Your task to perform on an android device: turn off wifi Image 0: 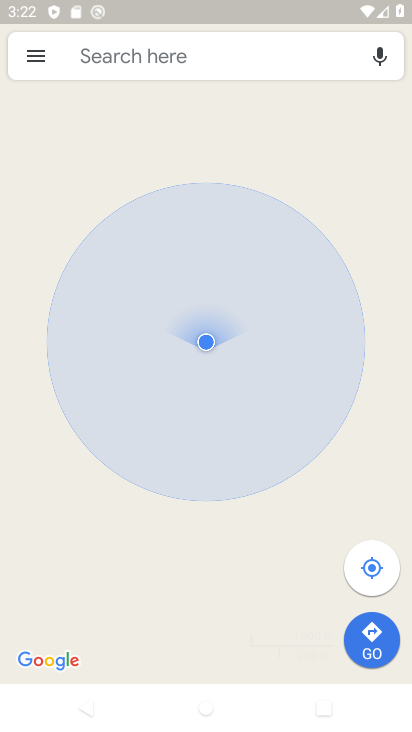
Step 0: press home button
Your task to perform on an android device: turn off wifi Image 1: 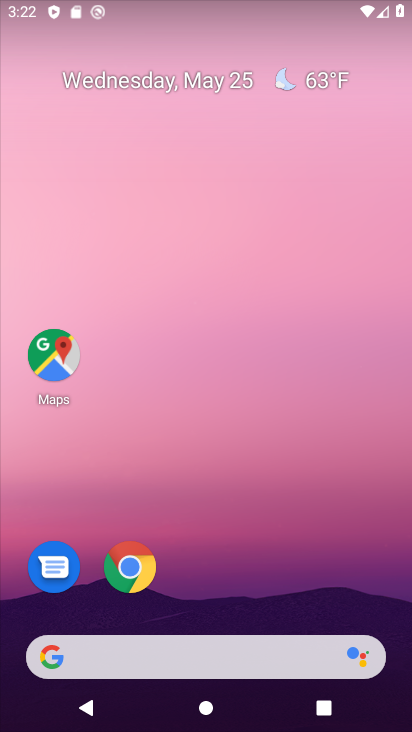
Step 1: drag from (259, 8) to (329, 613)
Your task to perform on an android device: turn off wifi Image 2: 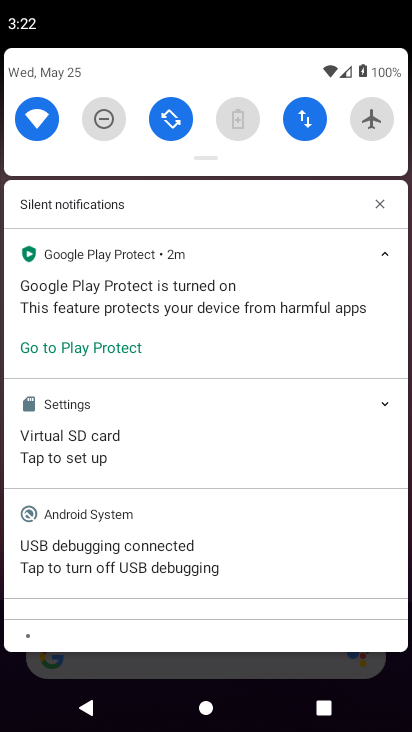
Step 2: click (33, 120)
Your task to perform on an android device: turn off wifi Image 3: 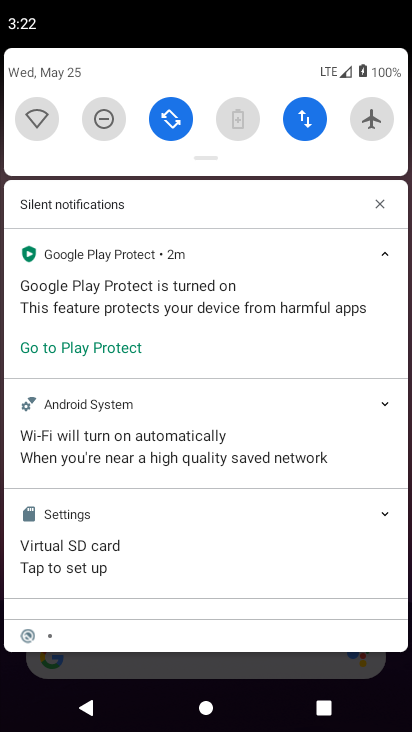
Step 3: task complete